Your task to perform on an android device: See recent photos Image 0: 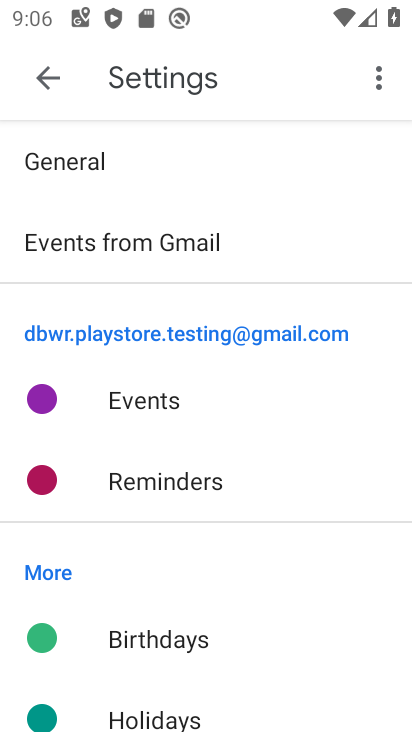
Step 0: press home button
Your task to perform on an android device: See recent photos Image 1: 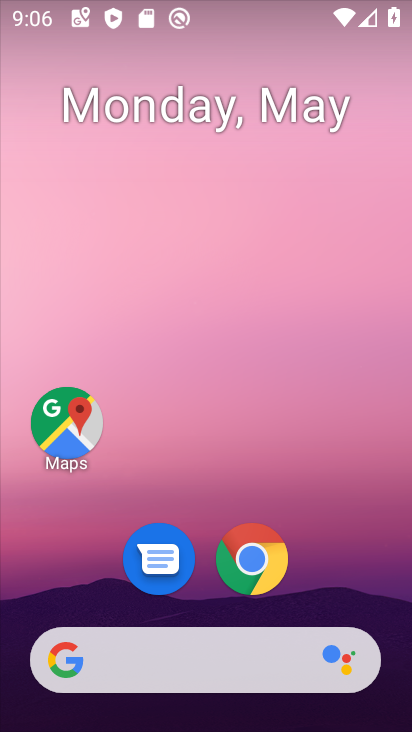
Step 1: drag from (317, 506) to (182, 126)
Your task to perform on an android device: See recent photos Image 2: 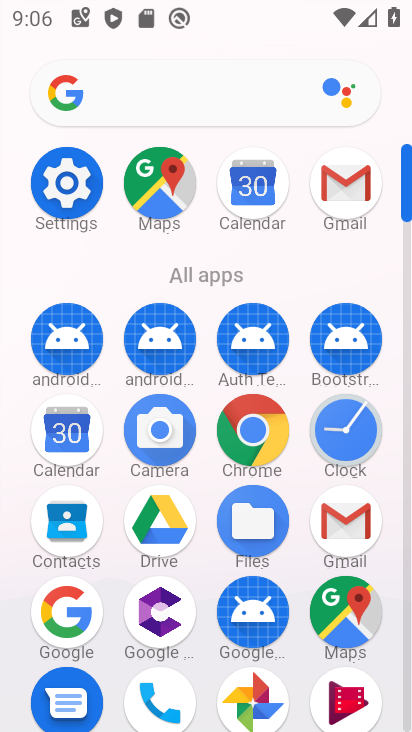
Step 2: click (258, 685)
Your task to perform on an android device: See recent photos Image 3: 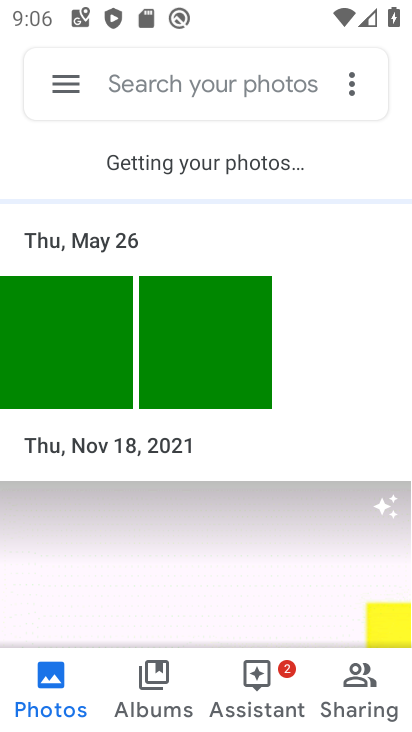
Step 3: task complete